Your task to perform on an android device: delete browsing data in the chrome app Image 0: 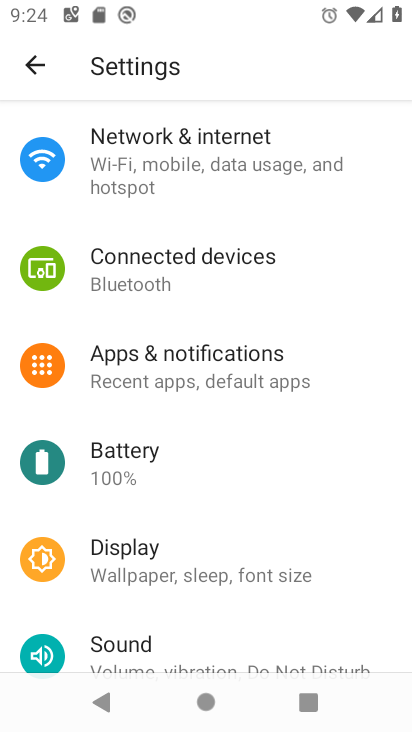
Step 0: press home button
Your task to perform on an android device: delete browsing data in the chrome app Image 1: 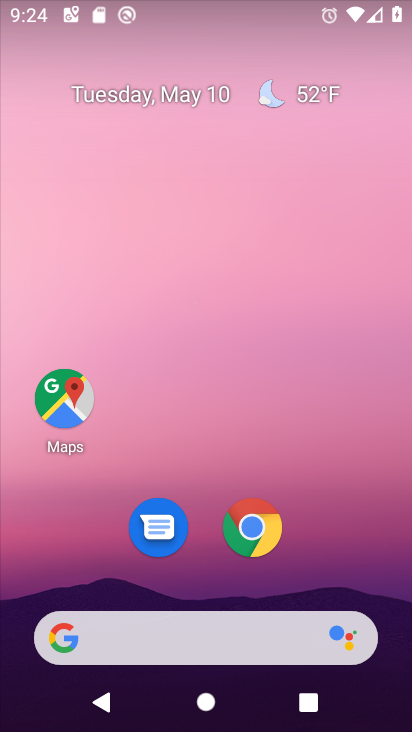
Step 1: click (245, 535)
Your task to perform on an android device: delete browsing data in the chrome app Image 2: 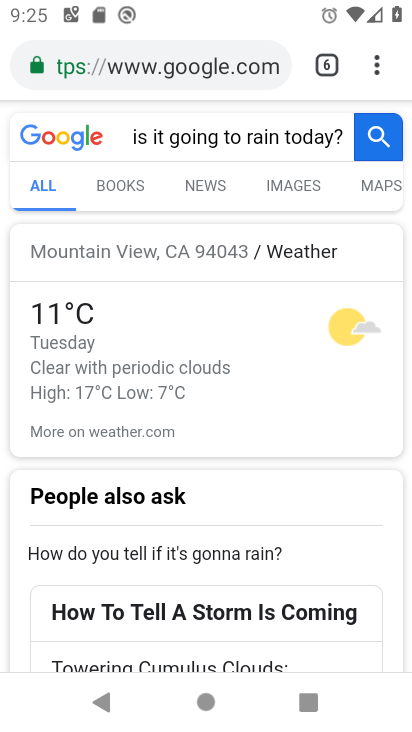
Step 2: click (378, 61)
Your task to perform on an android device: delete browsing data in the chrome app Image 3: 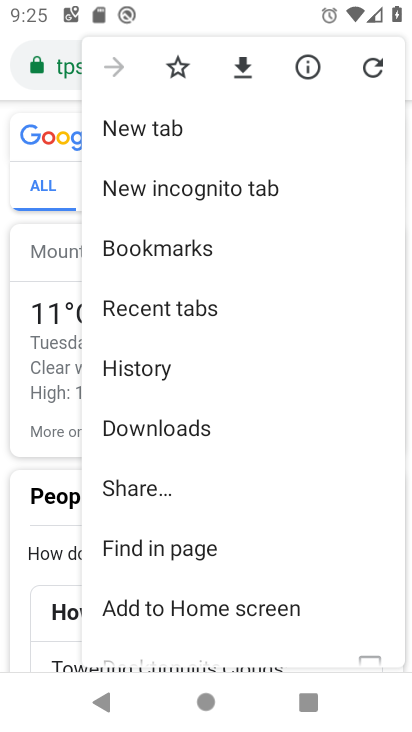
Step 3: click (137, 363)
Your task to perform on an android device: delete browsing data in the chrome app Image 4: 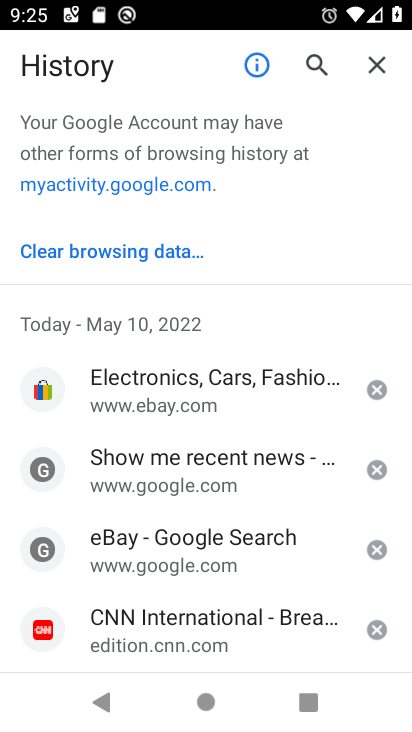
Step 4: click (79, 253)
Your task to perform on an android device: delete browsing data in the chrome app Image 5: 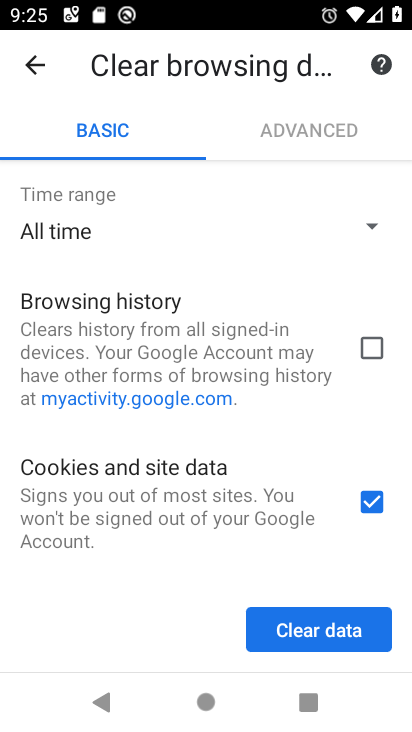
Step 5: click (368, 351)
Your task to perform on an android device: delete browsing data in the chrome app Image 6: 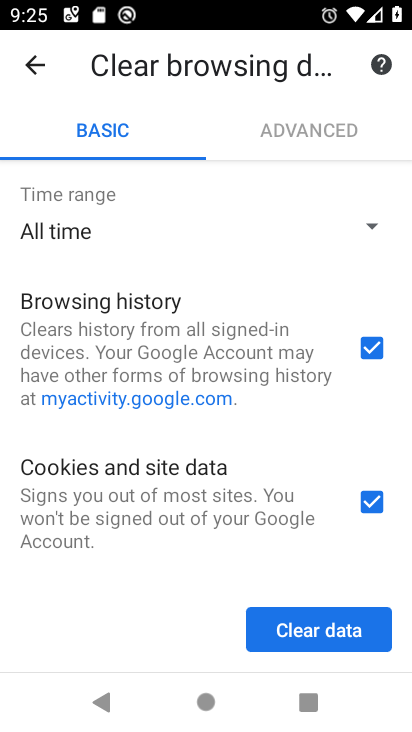
Step 6: click (348, 632)
Your task to perform on an android device: delete browsing data in the chrome app Image 7: 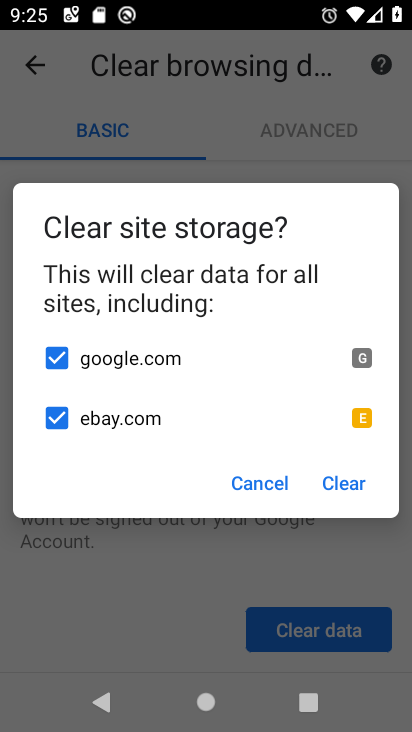
Step 7: click (350, 473)
Your task to perform on an android device: delete browsing data in the chrome app Image 8: 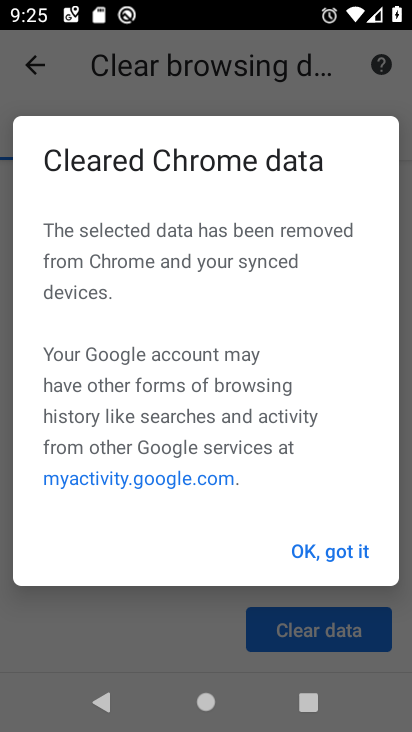
Step 8: click (339, 569)
Your task to perform on an android device: delete browsing data in the chrome app Image 9: 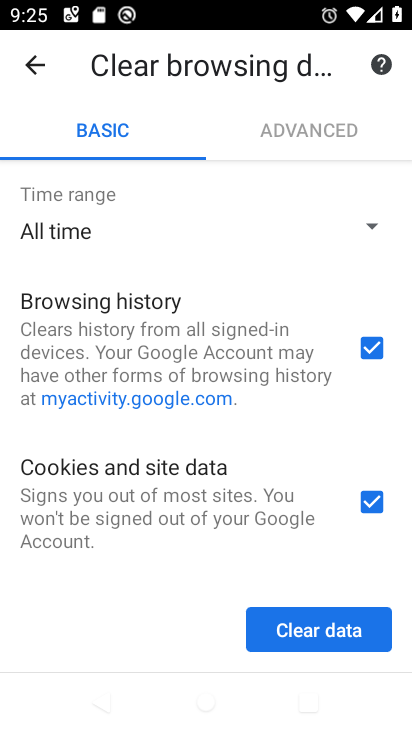
Step 9: click (340, 553)
Your task to perform on an android device: delete browsing data in the chrome app Image 10: 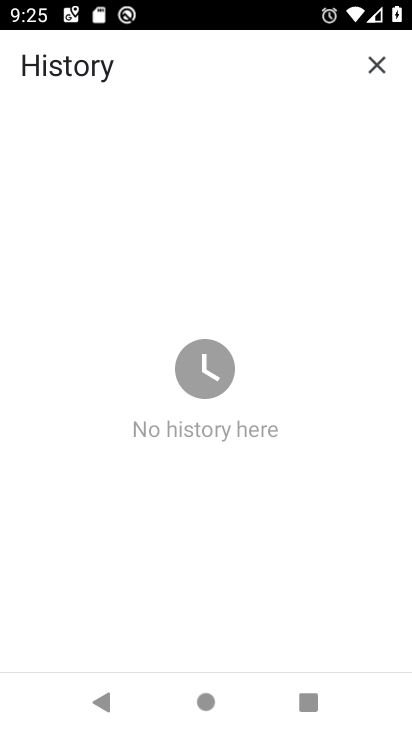
Step 10: task complete